Your task to perform on an android device: Open Wikipedia Image 0: 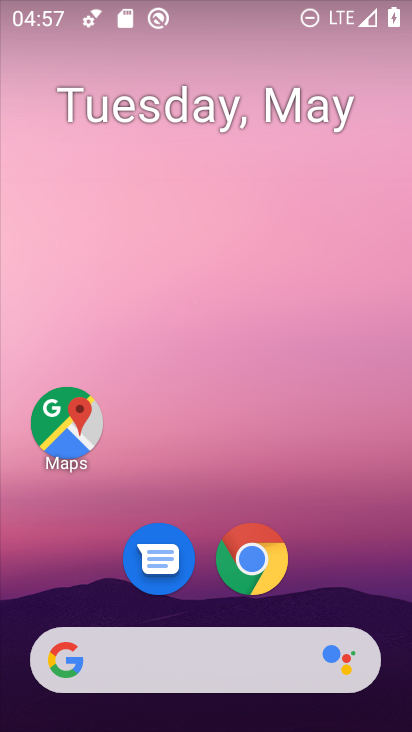
Step 0: click (259, 561)
Your task to perform on an android device: Open Wikipedia Image 1: 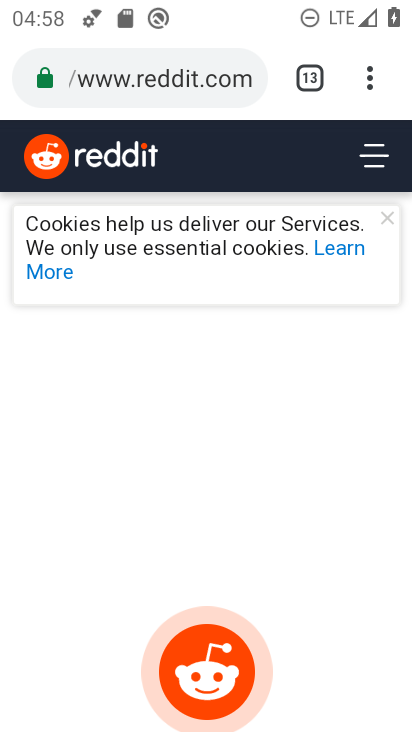
Step 1: click (369, 86)
Your task to perform on an android device: Open Wikipedia Image 2: 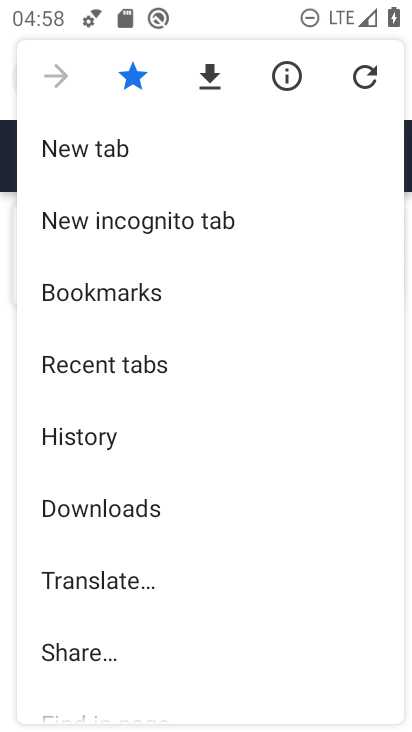
Step 2: click (105, 147)
Your task to perform on an android device: Open Wikipedia Image 3: 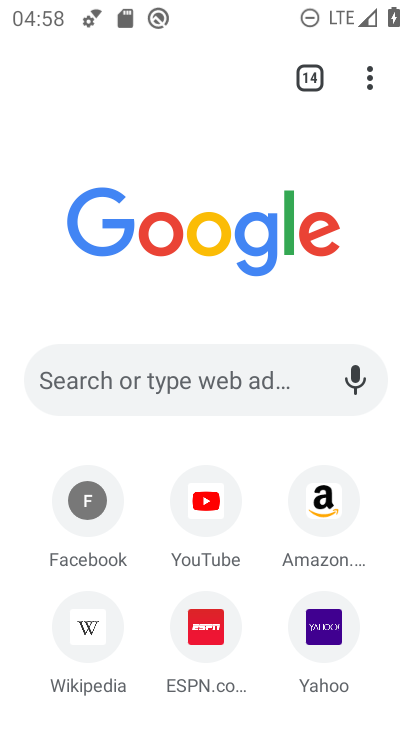
Step 3: click (87, 631)
Your task to perform on an android device: Open Wikipedia Image 4: 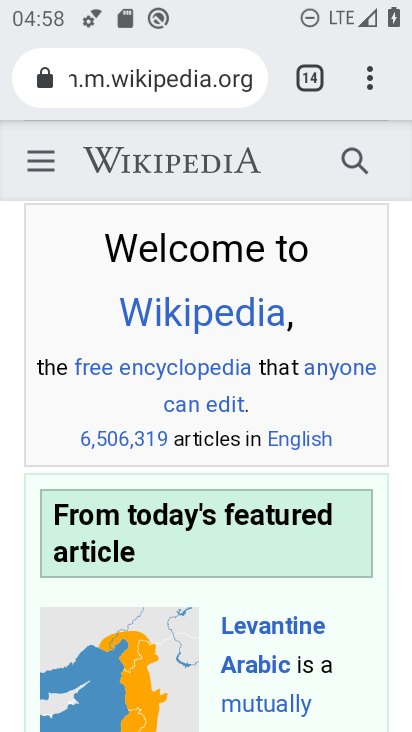
Step 4: task complete